Your task to perform on an android device: What's on my calendar today? Image 0: 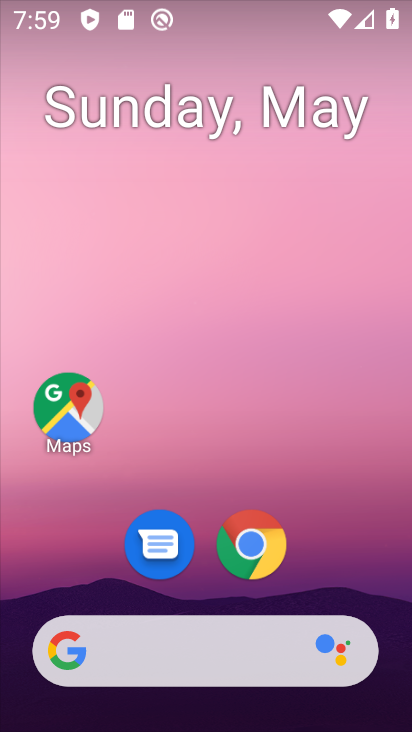
Step 0: drag from (323, 577) to (326, 3)
Your task to perform on an android device: What's on my calendar today? Image 1: 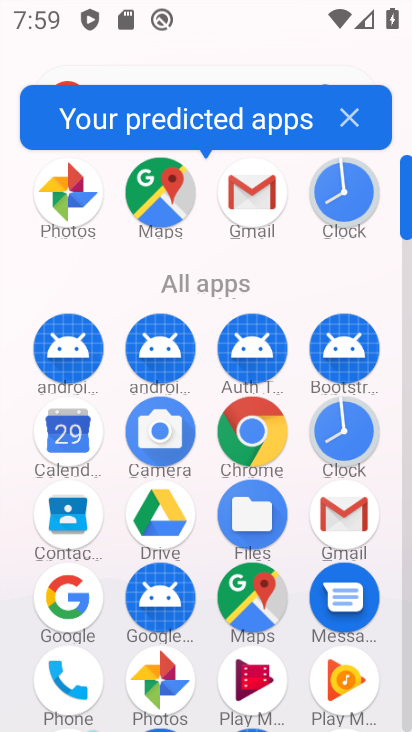
Step 1: click (65, 426)
Your task to perform on an android device: What's on my calendar today? Image 2: 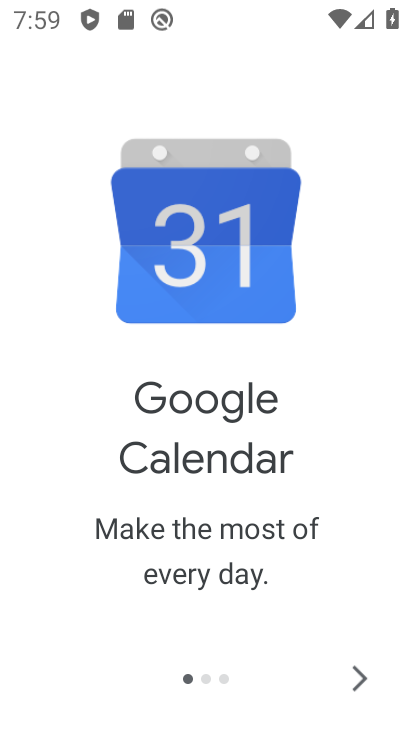
Step 2: click (355, 681)
Your task to perform on an android device: What's on my calendar today? Image 3: 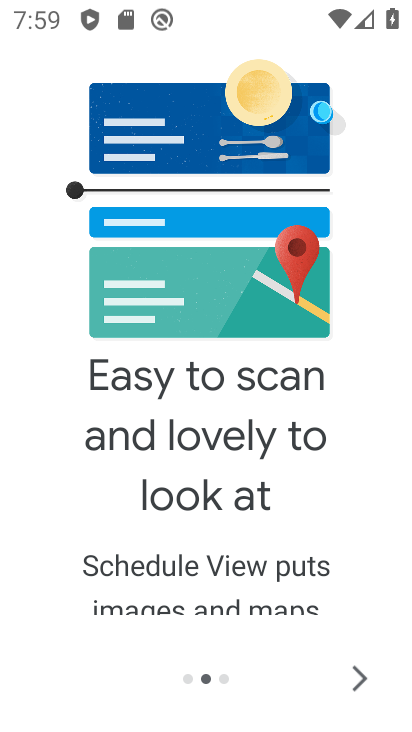
Step 3: click (355, 681)
Your task to perform on an android device: What's on my calendar today? Image 4: 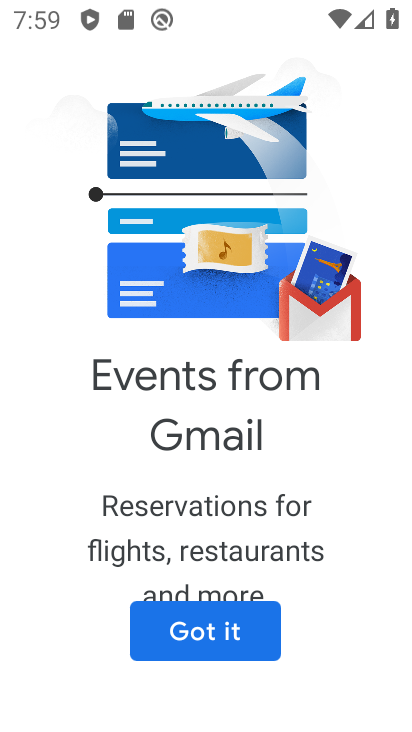
Step 4: click (213, 641)
Your task to perform on an android device: What's on my calendar today? Image 5: 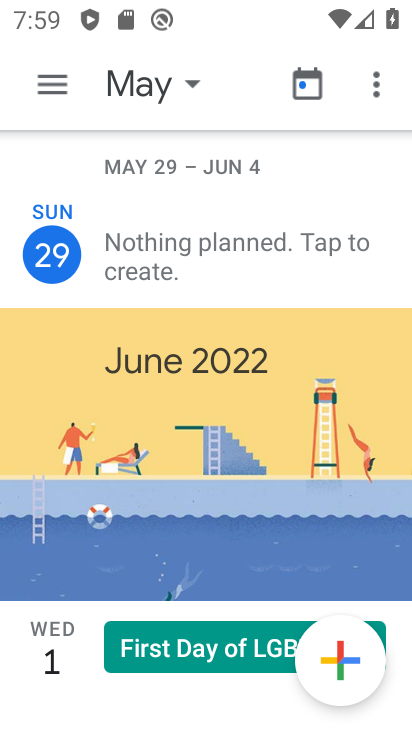
Step 5: click (172, 77)
Your task to perform on an android device: What's on my calendar today? Image 6: 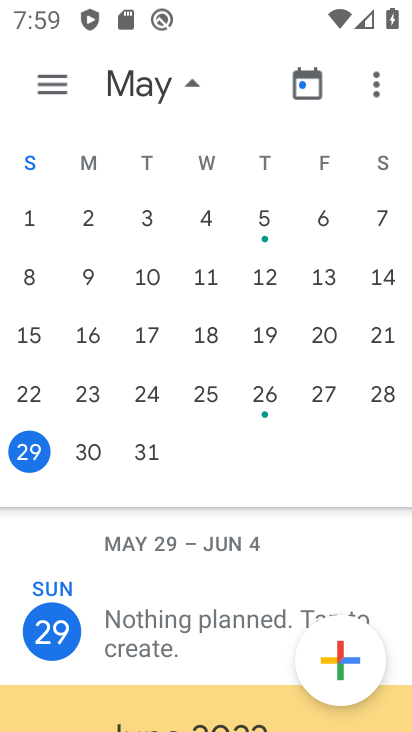
Step 6: task complete